Your task to perform on an android device: open app "Google Play Games" Image 0: 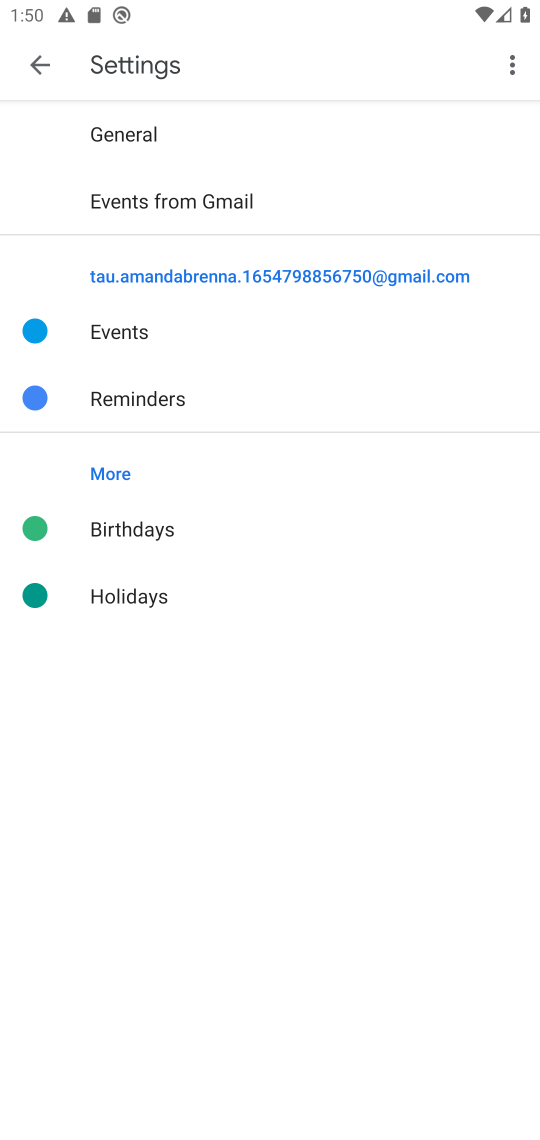
Step 0: press home button
Your task to perform on an android device: open app "Google Play Games" Image 1: 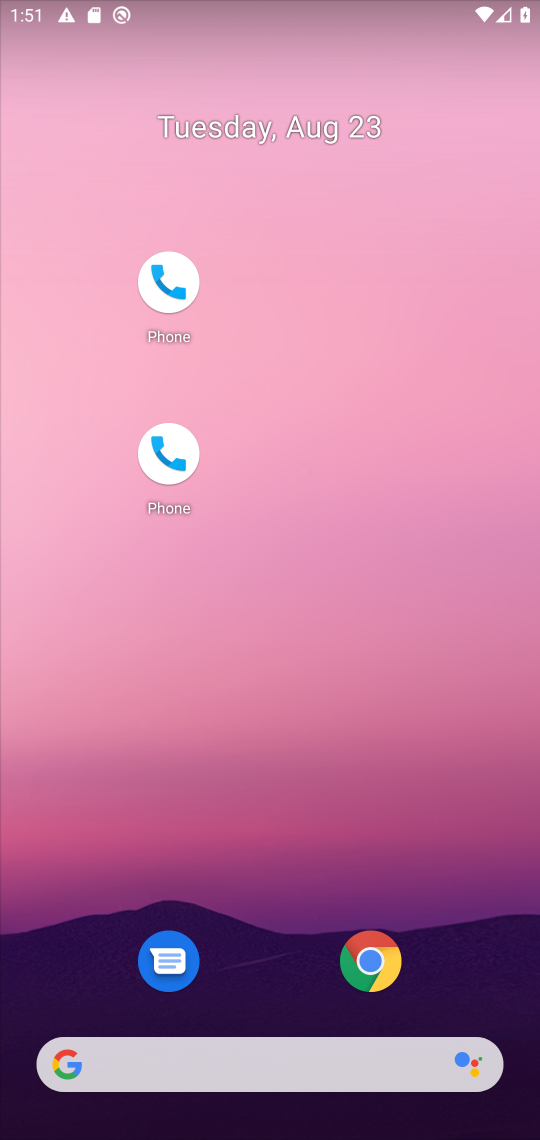
Step 1: drag from (298, 531) to (281, 58)
Your task to perform on an android device: open app "Google Play Games" Image 2: 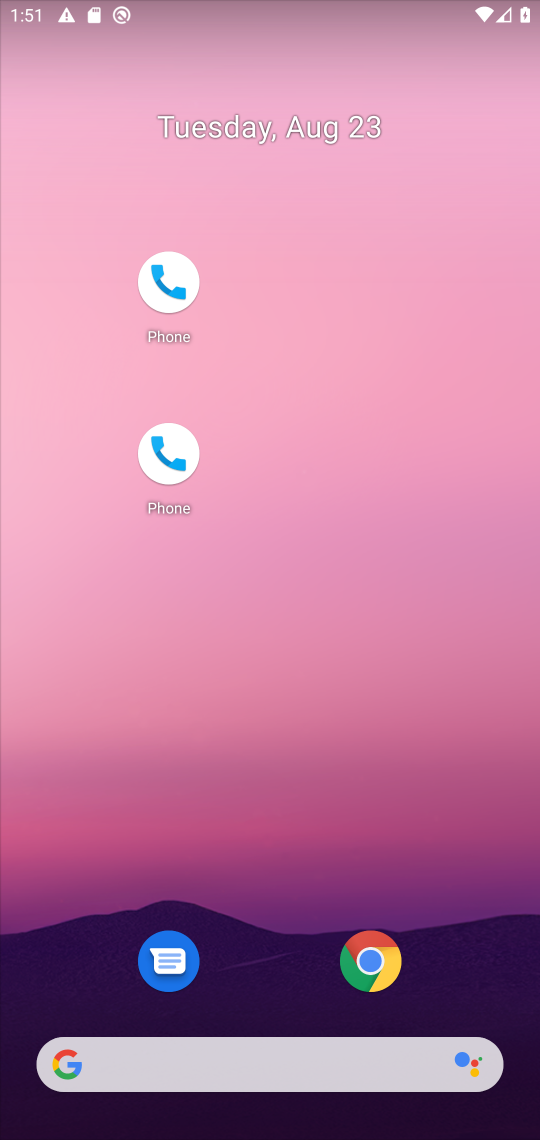
Step 2: drag from (265, 980) to (472, 8)
Your task to perform on an android device: open app "Google Play Games" Image 3: 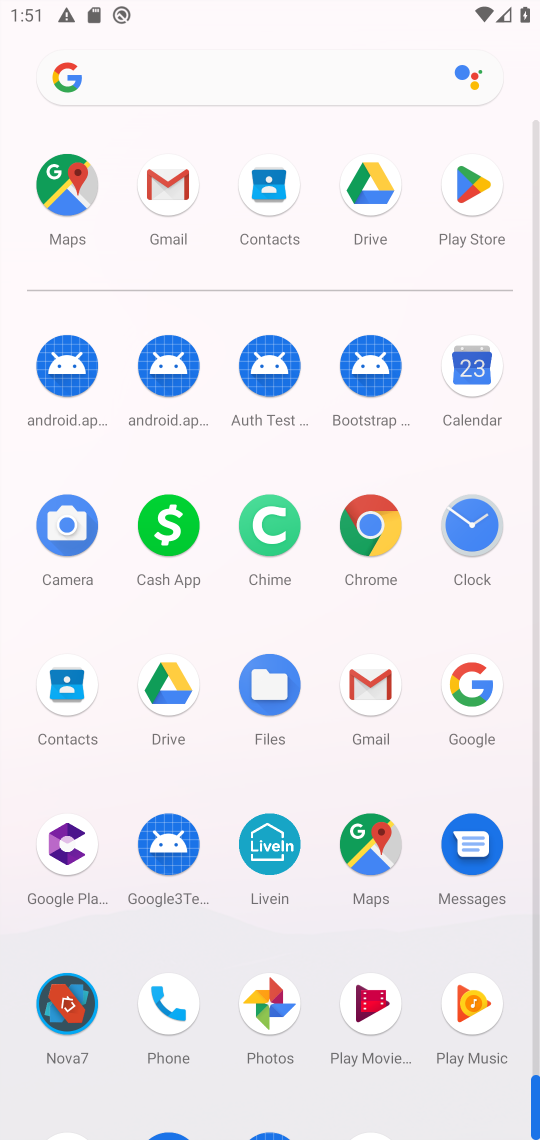
Step 3: click (470, 204)
Your task to perform on an android device: open app "Google Play Games" Image 4: 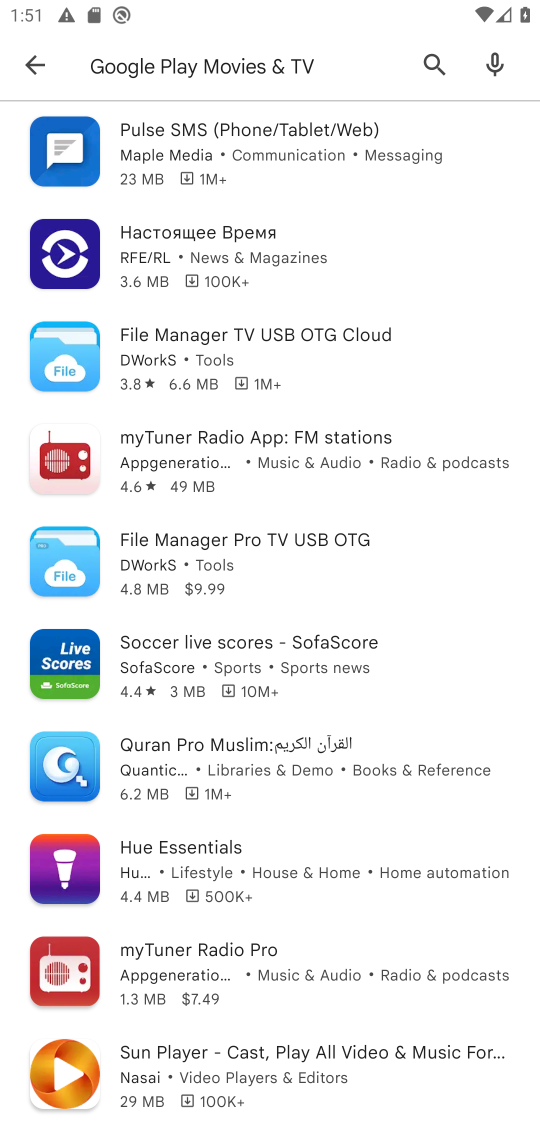
Step 4: click (422, 57)
Your task to perform on an android device: open app "Google Play Games" Image 5: 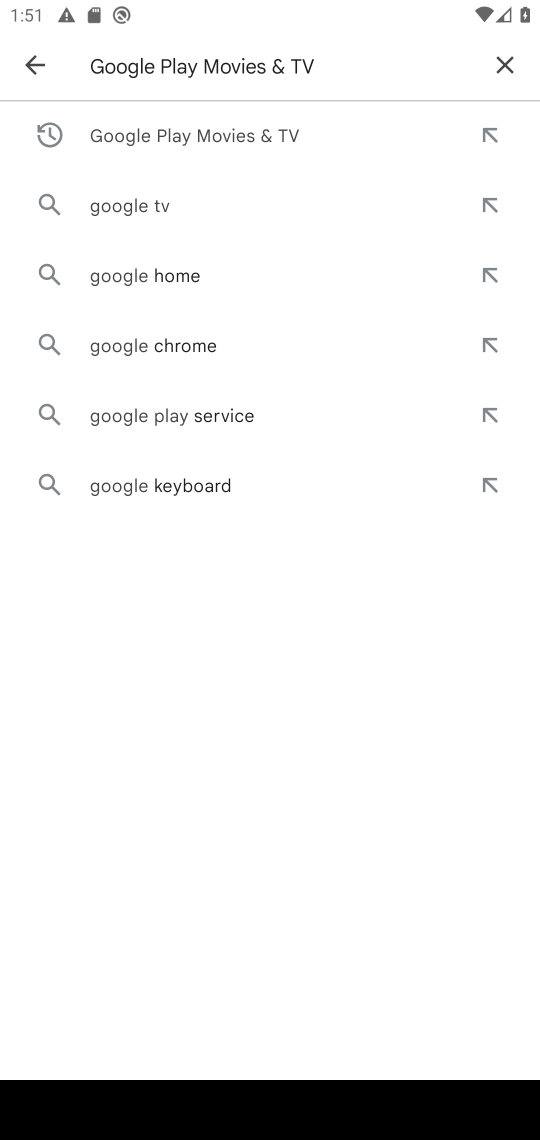
Step 5: click (491, 69)
Your task to perform on an android device: open app "Google Play Games" Image 6: 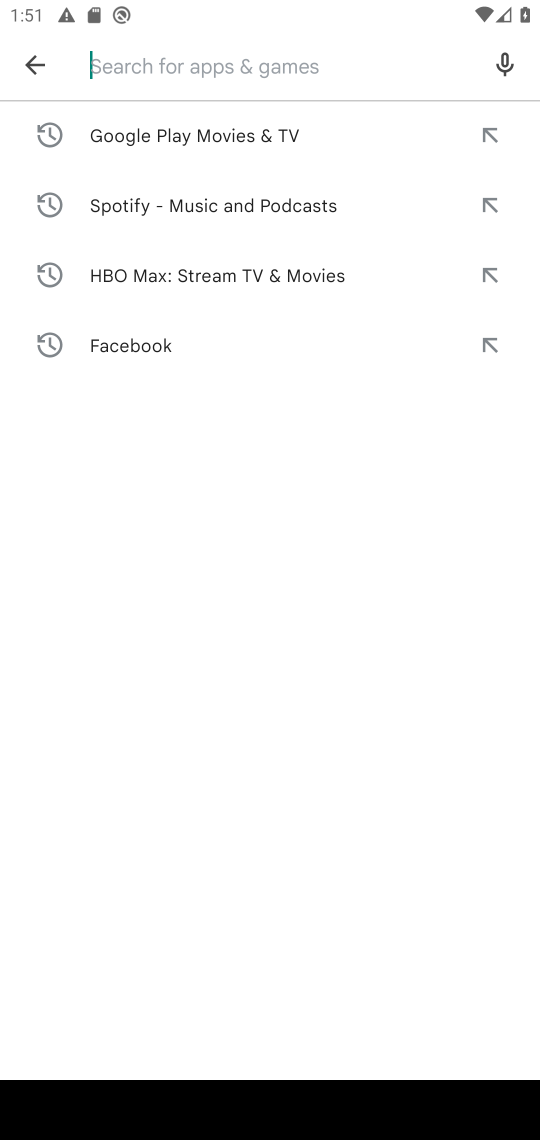
Step 6: type "google play game"
Your task to perform on an android device: open app "Google Play Games" Image 7: 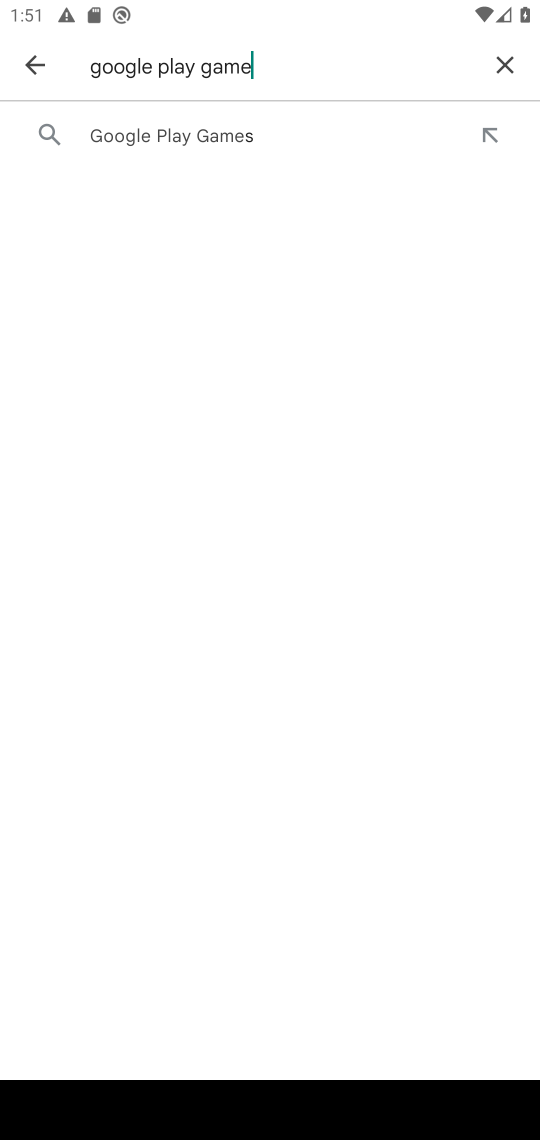
Step 7: click (179, 105)
Your task to perform on an android device: open app "Google Play Games" Image 8: 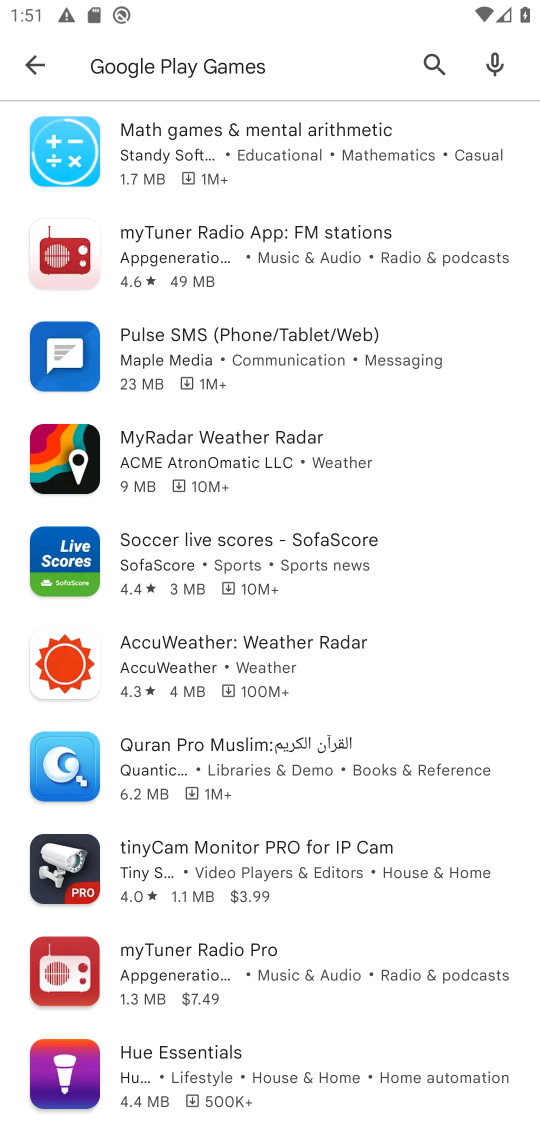
Step 8: task complete